Your task to perform on an android device: turn on data saver in the chrome app Image 0: 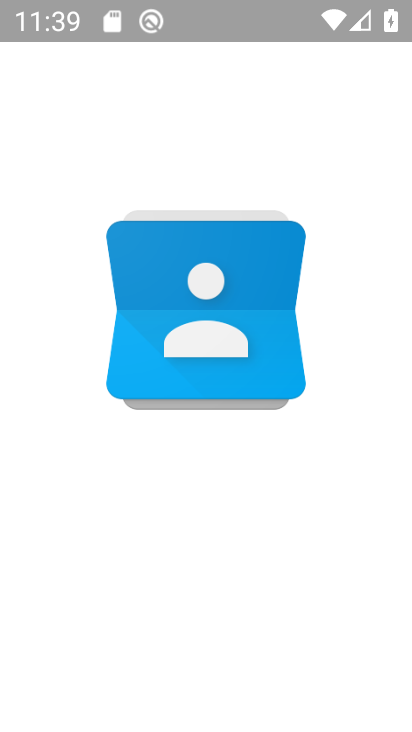
Step 0: drag from (136, 653) to (67, 39)
Your task to perform on an android device: turn on data saver in the chrome app Image 1: 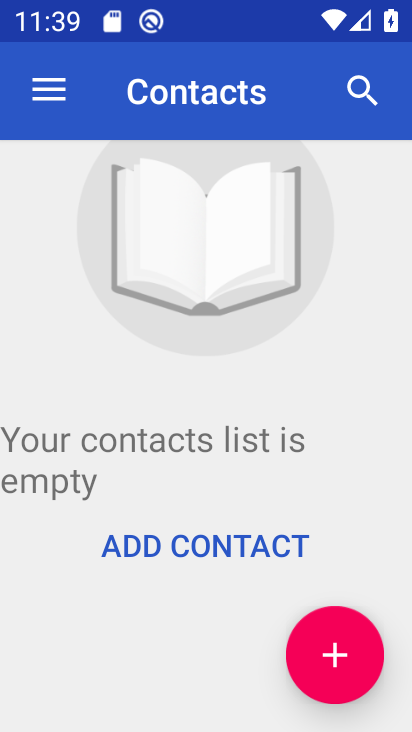
Step 1: press home button
Your task to perform on an android device: turn on data saver in the chrome app Image 2: 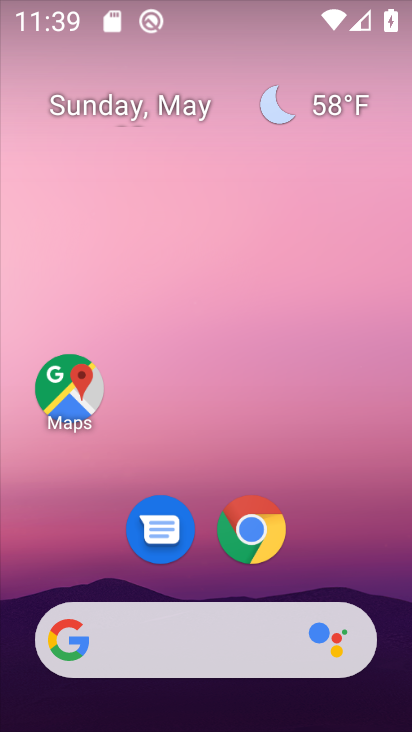
Step 2: drag from (215, 651) to (139, 179)
Your task to perform on an android device: turn on data saver in the chrome app Image 3: 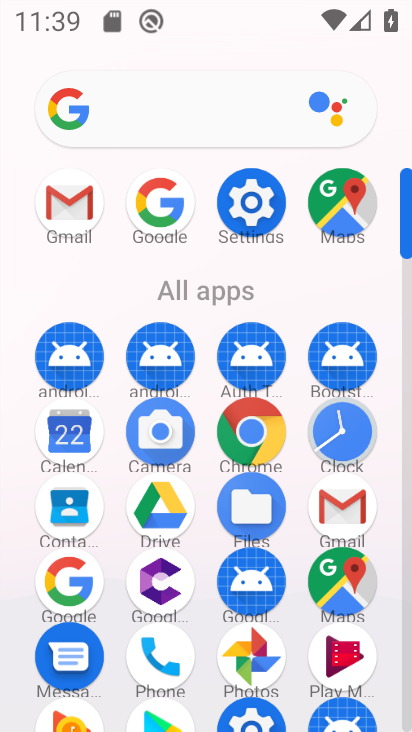
Step 3: click (247, 422)
Your task to perform on an android device: turn on data saver in the chrome app Image 4: 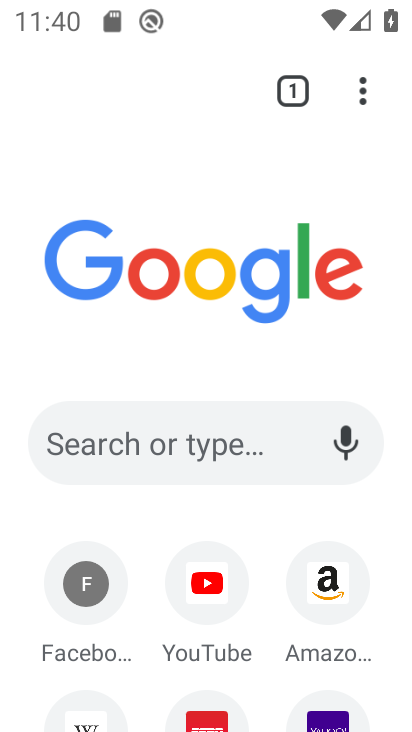
Step 4: drag from (364, 80) to (167, 545)
Your task to perform on an android device: turn on data saver in the chrome app Image 5: 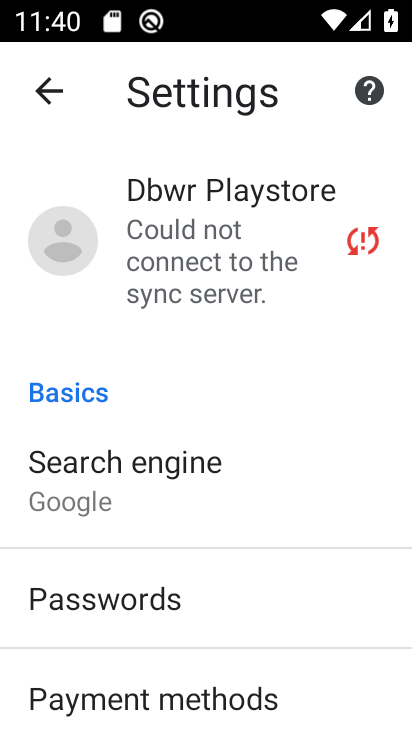
Step 5: drag from (179, 640) to (90, 190)
Your task to perform on an android device: turn on data saver in the chrome app Image 6: 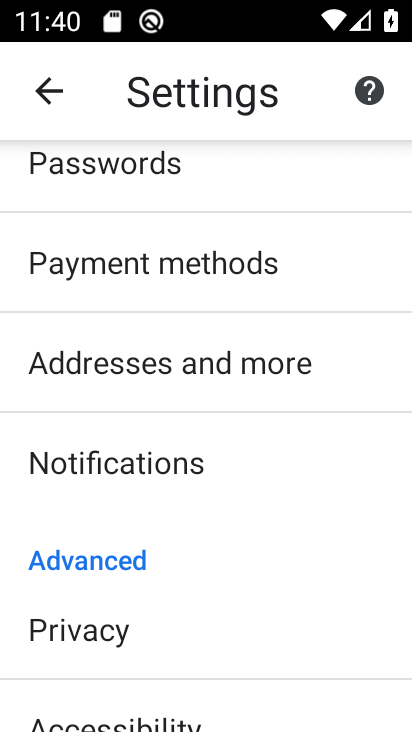
Step 6: drag from (173, 667) to (154, 254)
Your task to perform on an android device: turn on data saver in the chrome app Image 7: 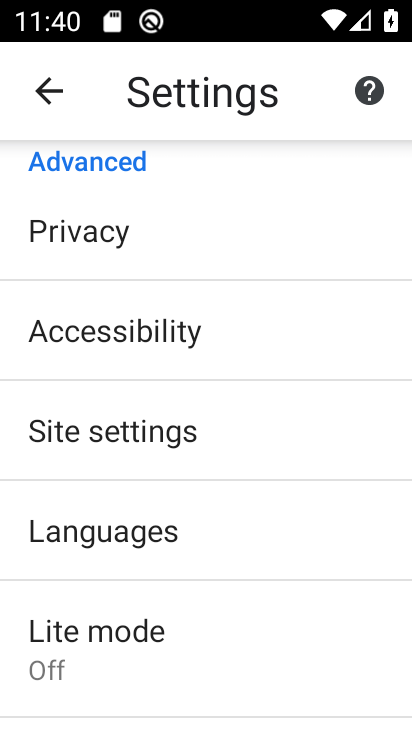
Step 7: click (147, 656)
Your task to perform on an android device: turn on data saver in the chrome app Image 8: 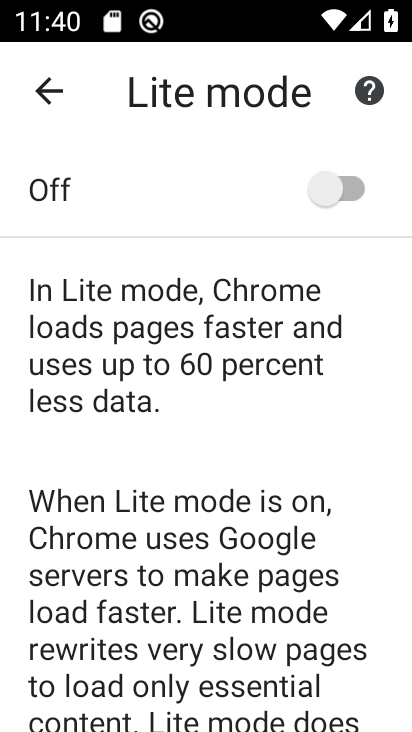
Step 8: click (345, 190)
Your task to perform on an android device: turn on data saver in the chrome app Image 9: 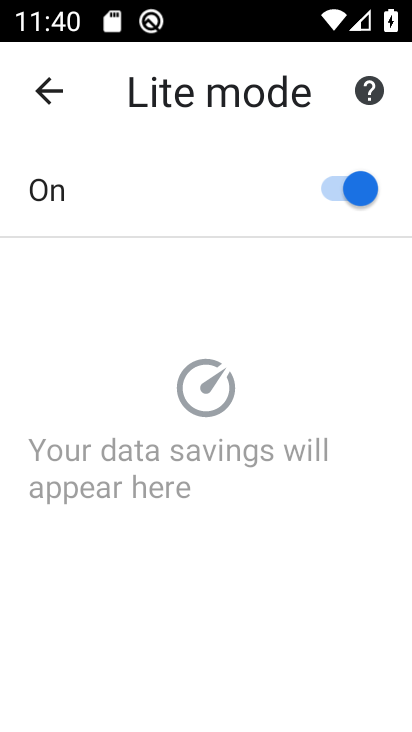
Step 9: task complete